Your task to perform on an android device: turn off notifications in google photos Image 0: 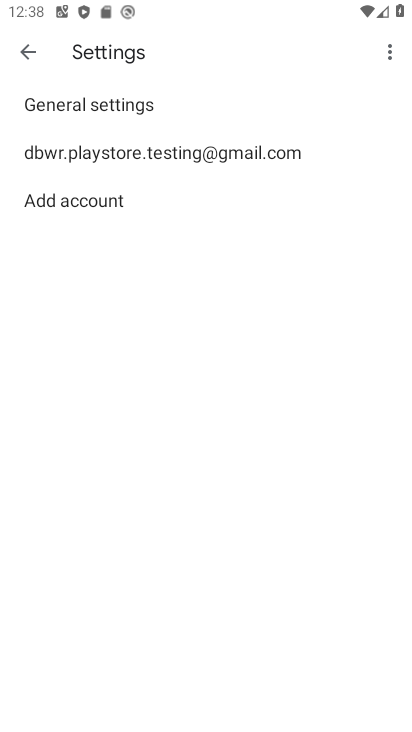
Step 0: task complete